Your task to perform on an android device: open app "ColorNote Notepad Notes" (install if not already installed) Image 0: 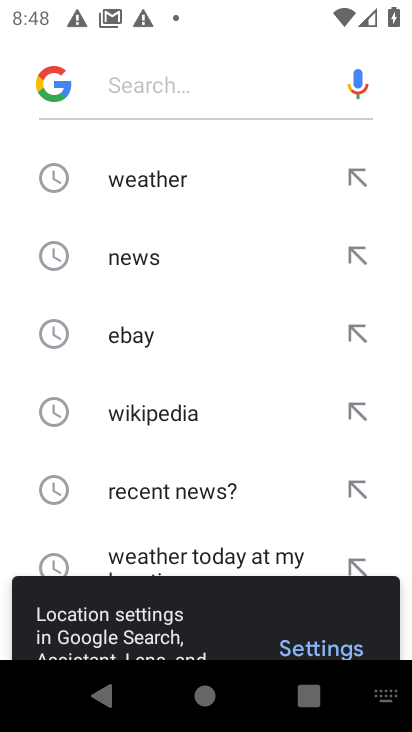
Step 0: press home button
Your task to perform on an android device: open app "ColorNote Notepad Notes" (install if not already installed) Image 1: 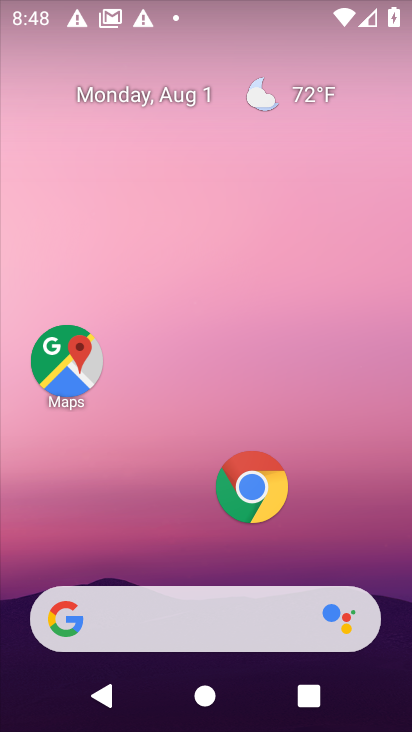
Step 1: drag from (219, 516) to (294, 89)
Your task to perform on an android device: open app "ColorNote Notepad Notes" (install if not already installed) Image 2: 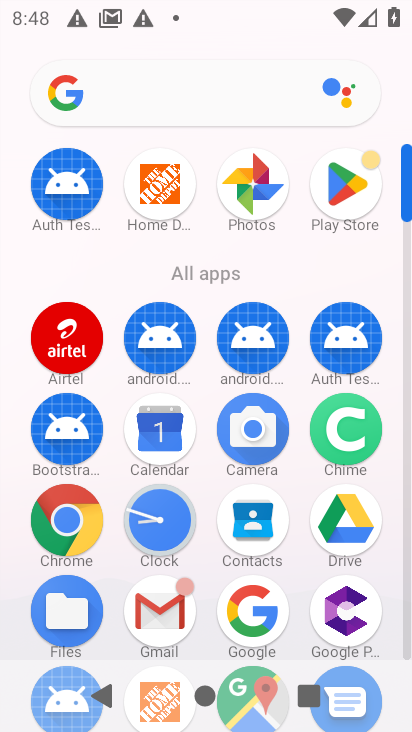
Step 2: click (348, 191)
Your task to perform on an android device: open app "ColorNote Notepad Notes" (install if not already installed) Image 3: 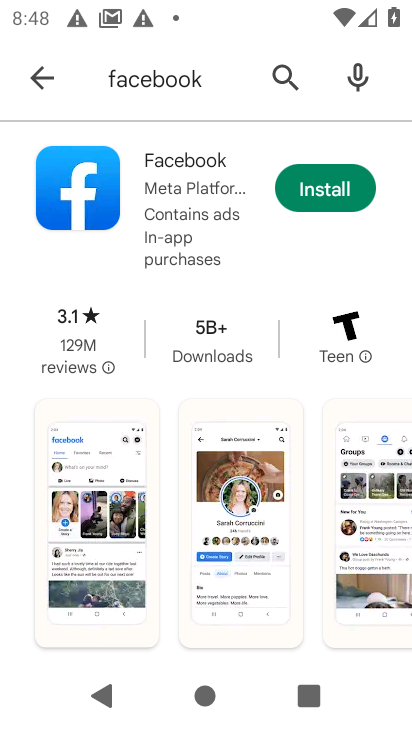
Step 3: click (47, 85)
Your task to perform on an android device: open app "ColorNote Notepad Notes" (install if not already installed) Image 4: 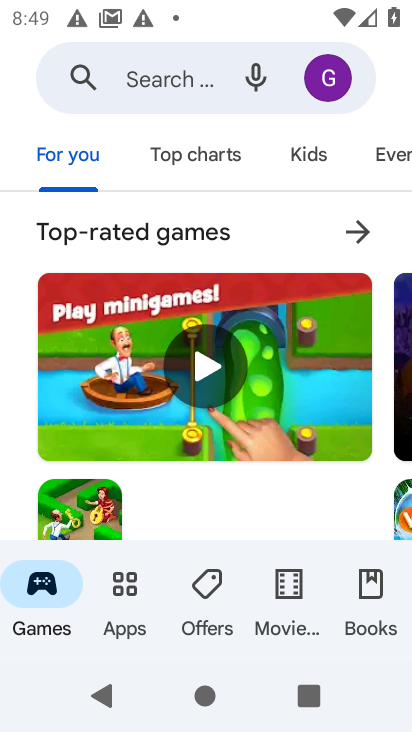
Step 4: click (174, 82)
Your task to perform on an android device: open app "ColorNote Notepad Notes" (install if not already installed) Image 5: 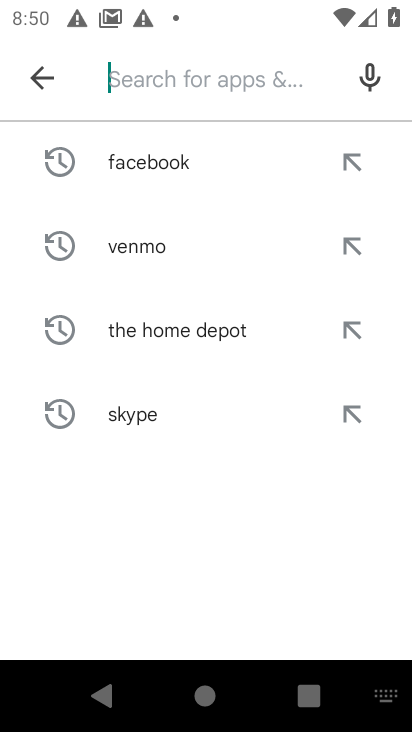
Step 5: type "ColorNote Notepad Notes"
Your task to perform on an android device: open app "ColorNote Notepad Notes" (install if not already installed) Image 6: 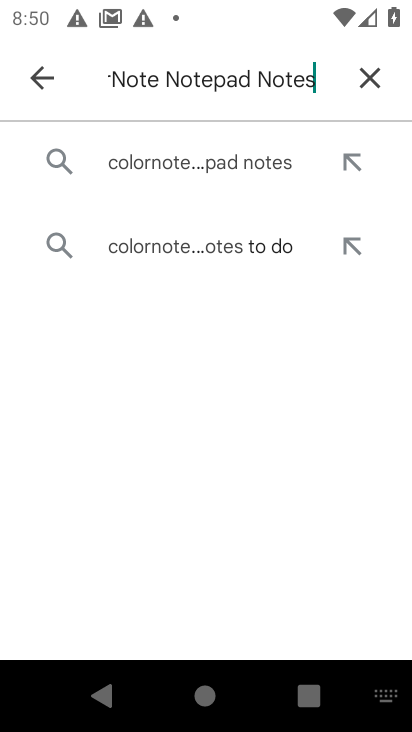
Step 6: click (223, 161)
Your task to perform on an android device: open app "ColorNote Notepad Notes" (install if not already installed) Image 7: 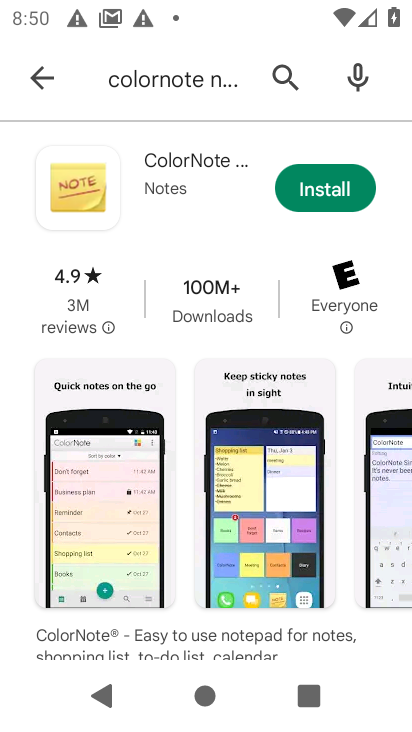
Step 7: click (321, 180)
Your task to perform on an android device: open app "ColorNote Notepad Notes" (install if not already installed) Image 8: 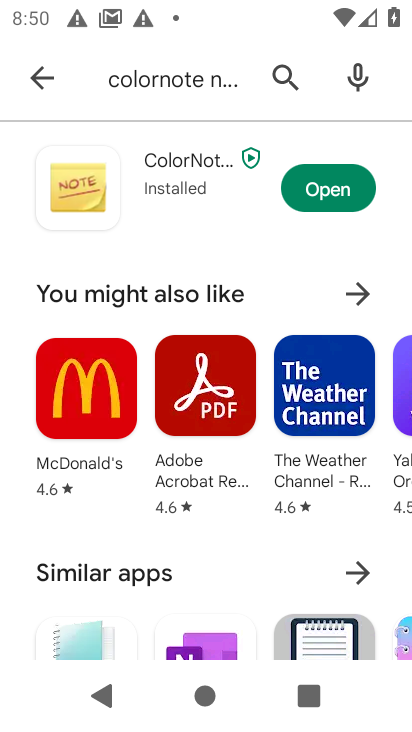
Step 8: click (328, 193)
Your task to perform on an android device: open app "ColorNote Notepad Notes" (install if not already installed) Image 9: 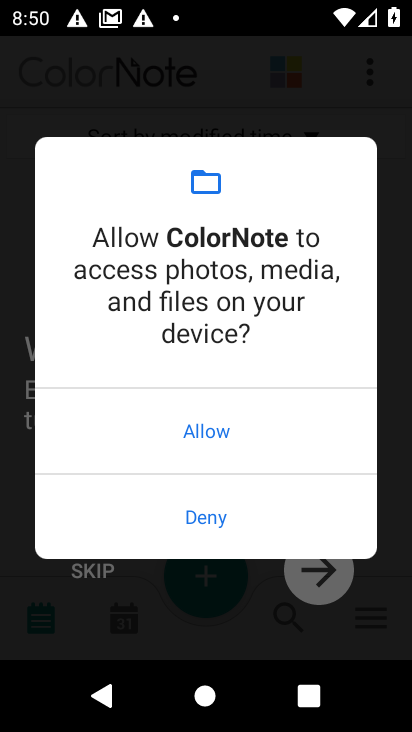
Step 9: task complete